Your task to perform on an android device: Search for seafood restaurants on Google Maps Image 0: 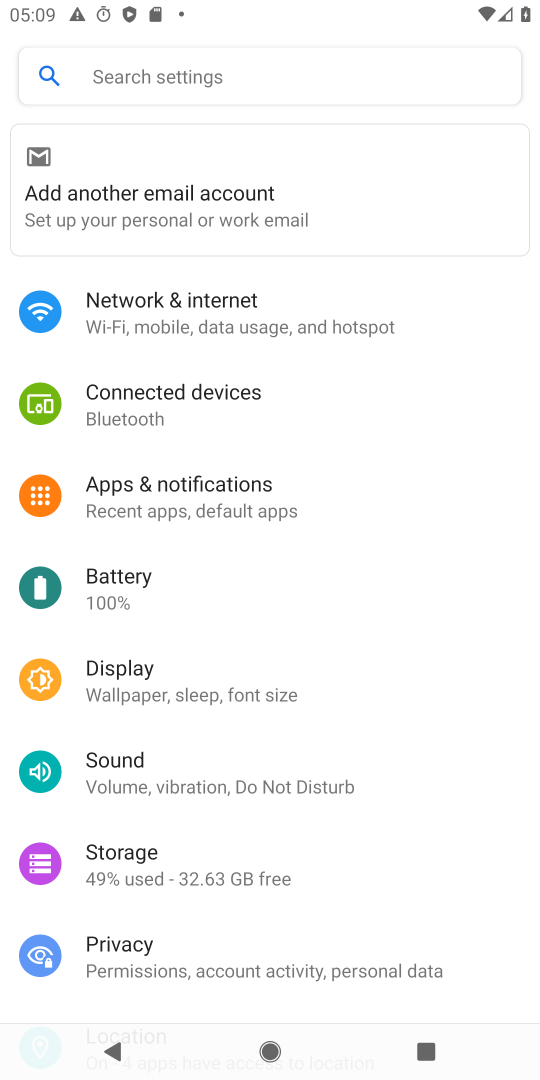
Step 0: press home button
Your task to perform on an android device: Search for seafood restaurants on Google Maps Image 1: 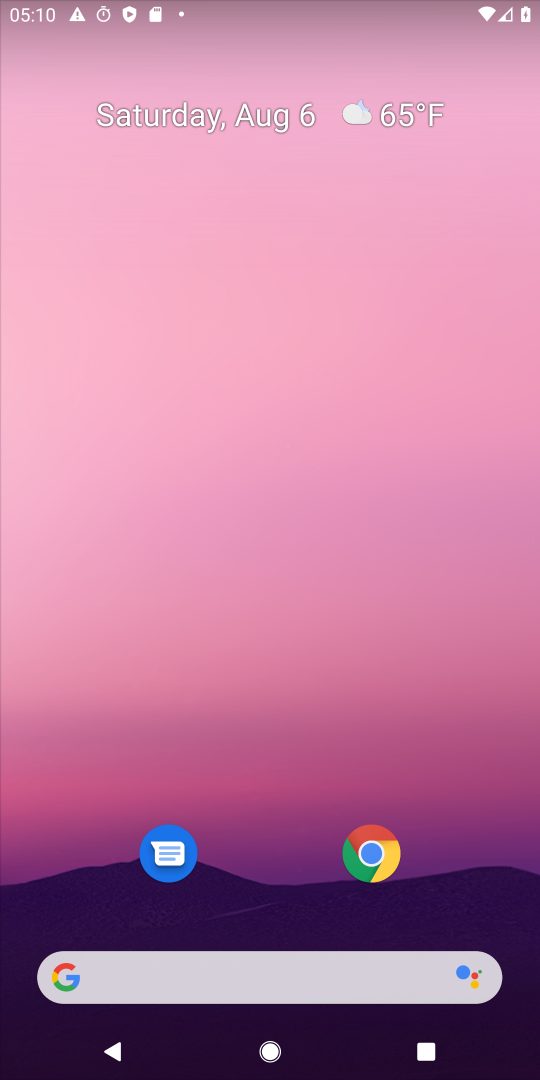
Step 1: drag from (212, 840) to (251, 183)
Your task to perform on an android device: Search for seafood restaurants on Google Maps Image 2: 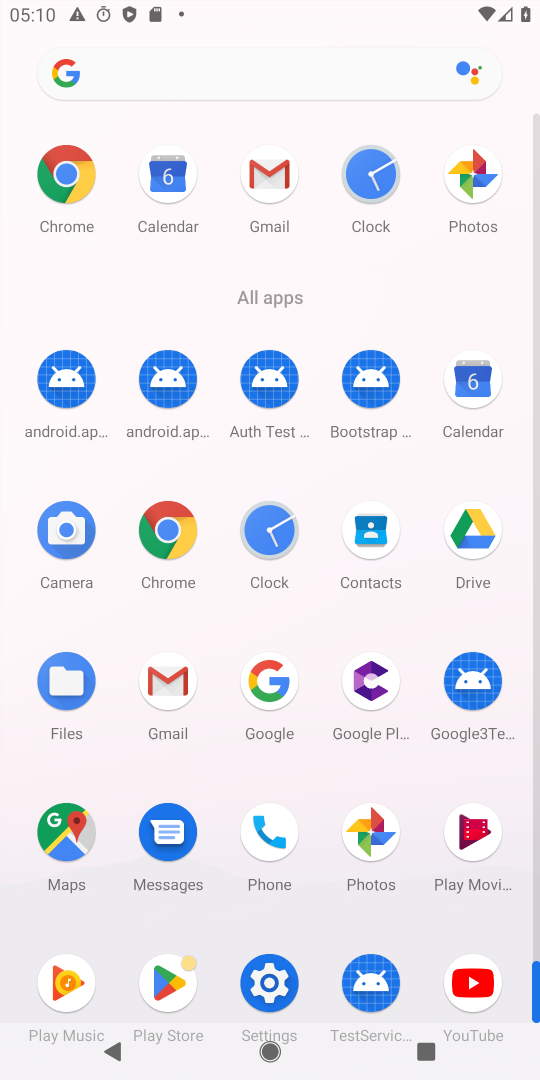
Step 2: click (65, 823)
Your task to perform on an android device: Search for seafood restaurants on Google Maps Image 3: 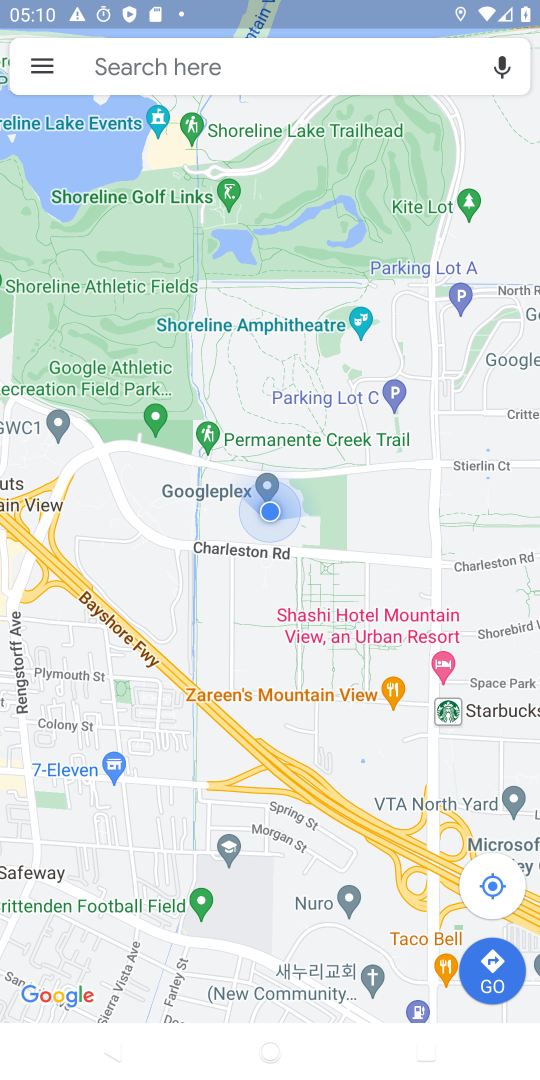
Step 3: click (303, 59)
Your task to perform on an android device: Search for seafood restaurants on Google Maps Image 4: 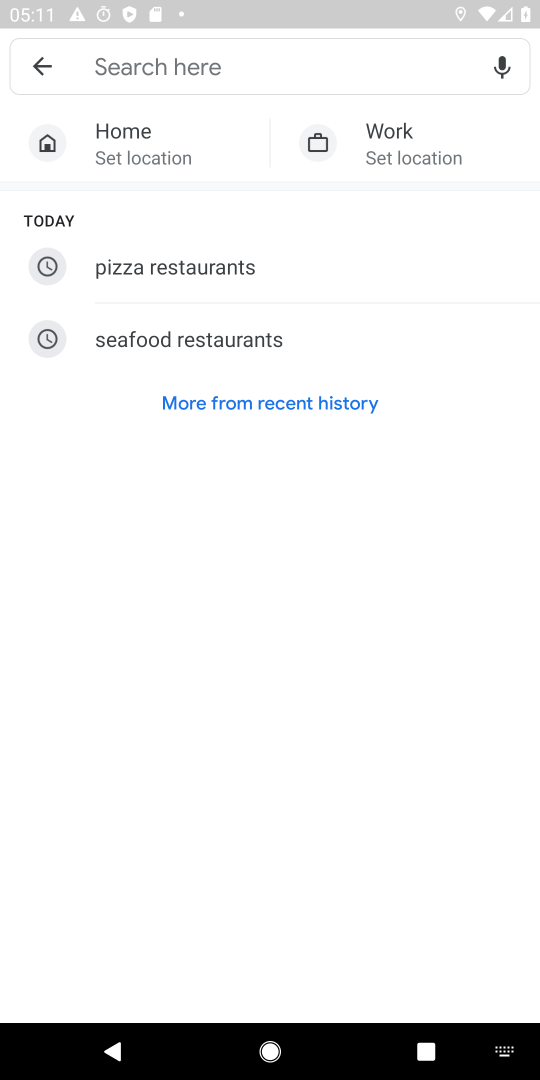
Step 4: type "seafood restaurants"
Your task to perform on an android device: Search for seafood restaurants on Google Maps Image 5: 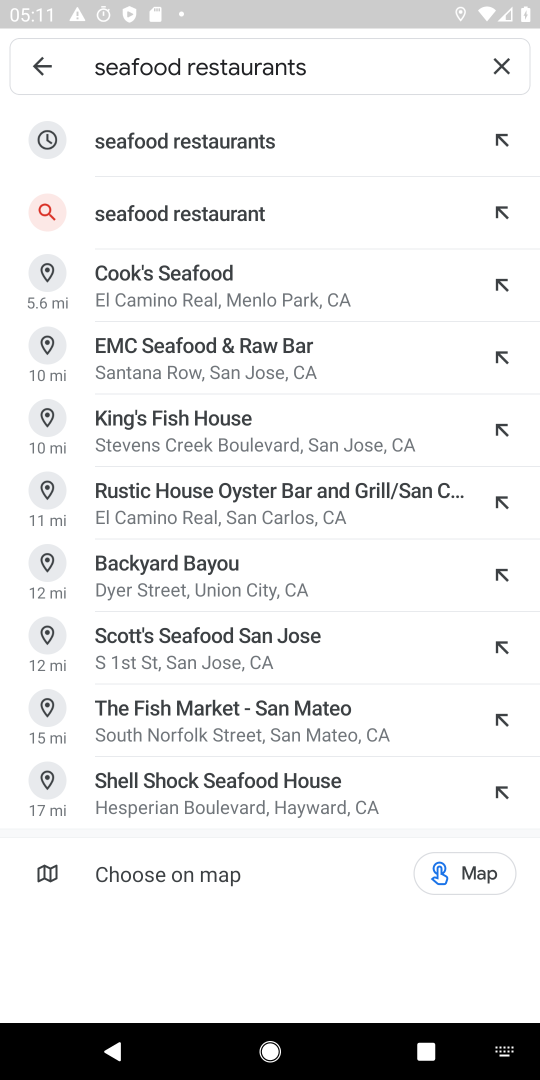
Step 5: click (269, 131)
Your task to perform on an android device: Search for seafood restaurants on Google Maps Image 6: 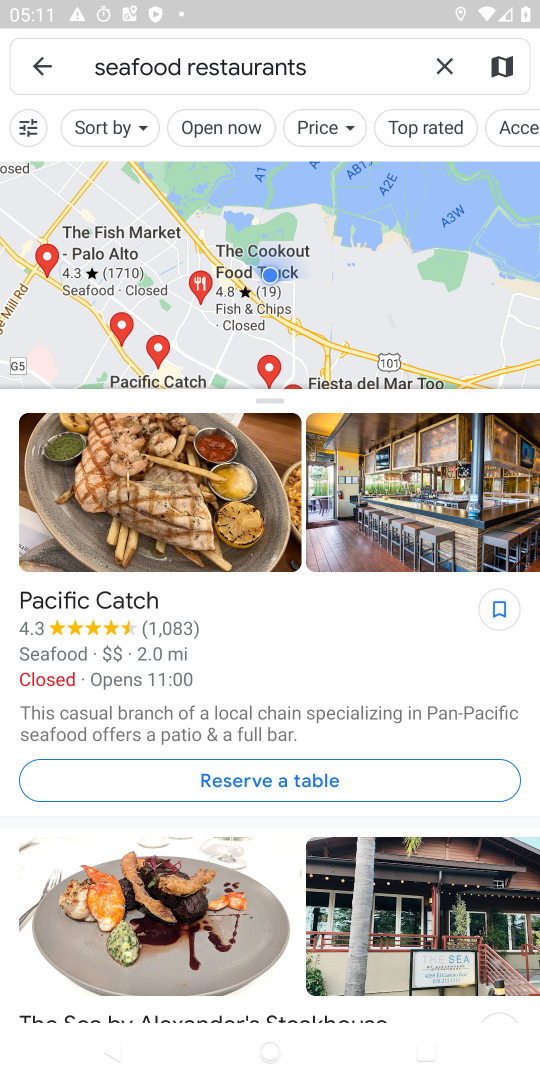
Step 6: task complete